Your task to perform on an android device: Check the weather Image 0: 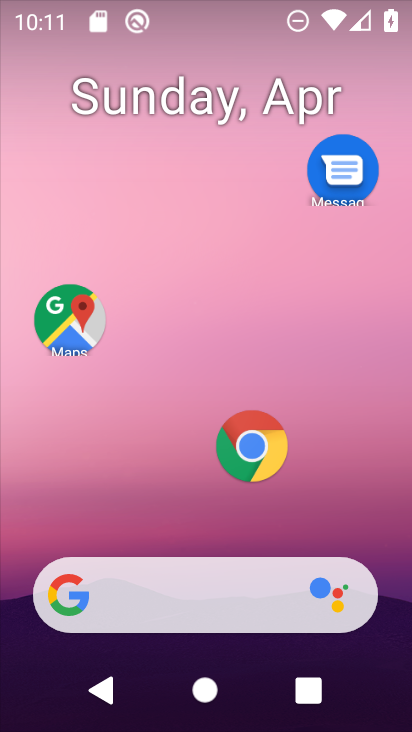
Step 0: drag from (197, 523) to (197, 150)
Your task to perform on an android device: Check the weather Image 1: 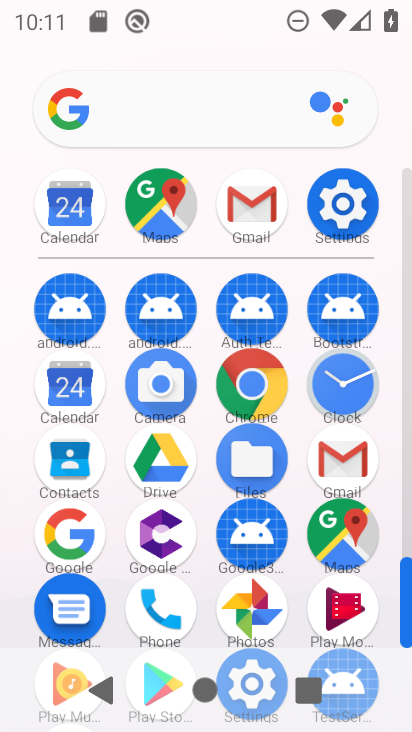
Step 1: click (74, 540)
Your task to perform on an android device: Check the weather Image 2: 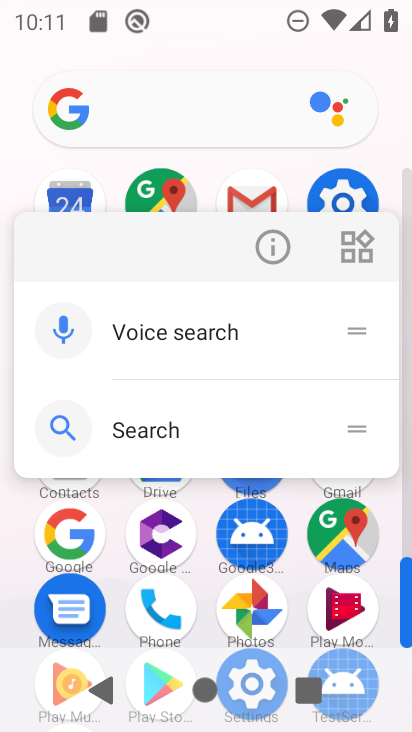
Step 2: click (275, 253)
Your task to perform on an android device: Check the weather Image 3: 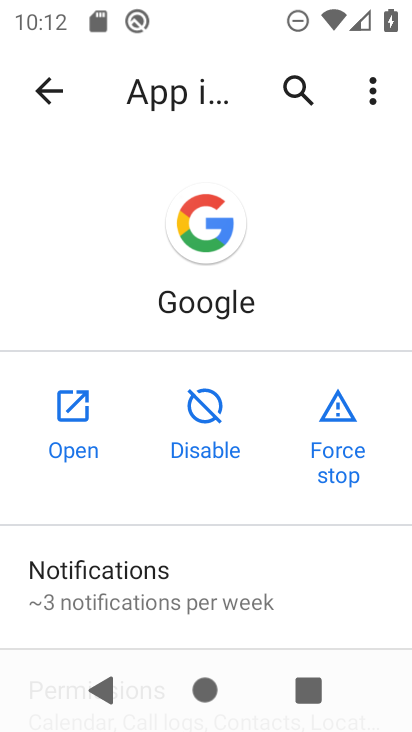
Step 3: click (65, 411)
Your task to perform on an android device: Check the weather Image 4: 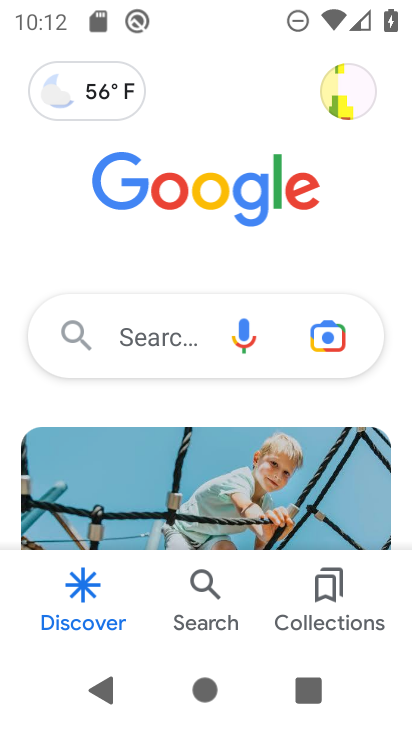
Step 4: click (146, 333)
Your task to perform on an android device: Check the weather Image 5: 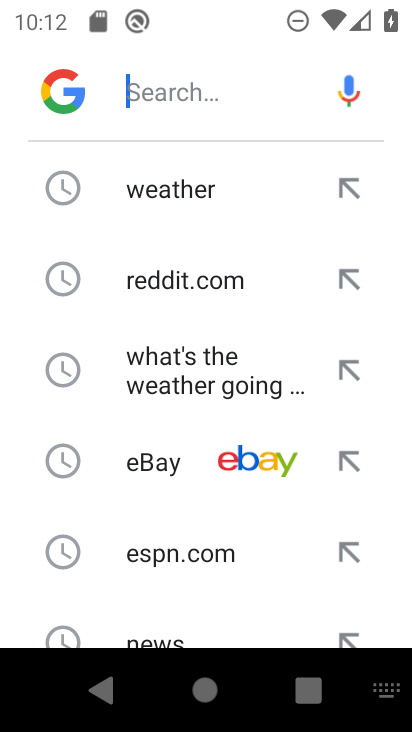
Step 5: click (167, 162)
Your task to perform on an android device: Check the weather Image 6: 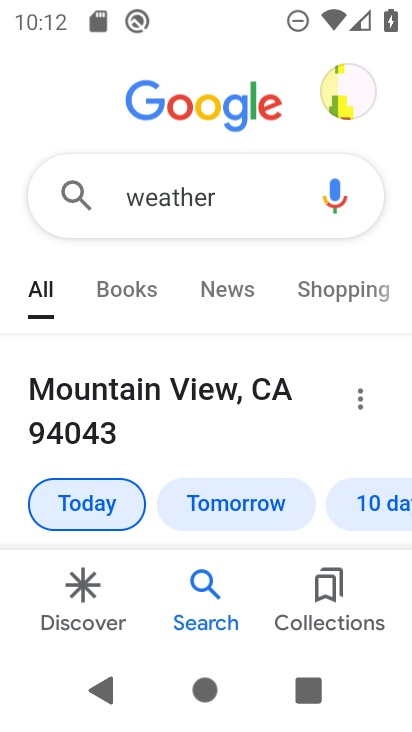
Step 6: task complete